Your task to perform on an android device: Go to battery settings Image 0: 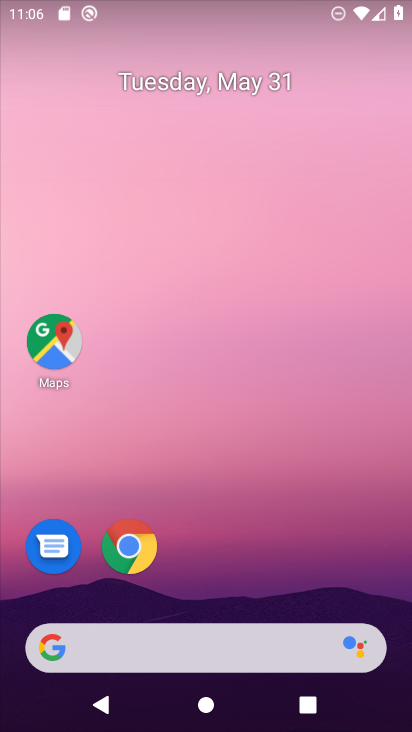
Step 0: drag from (214, 634) to (239, 26)
Your task to perform on an android device: Go to battery settings Image 1: 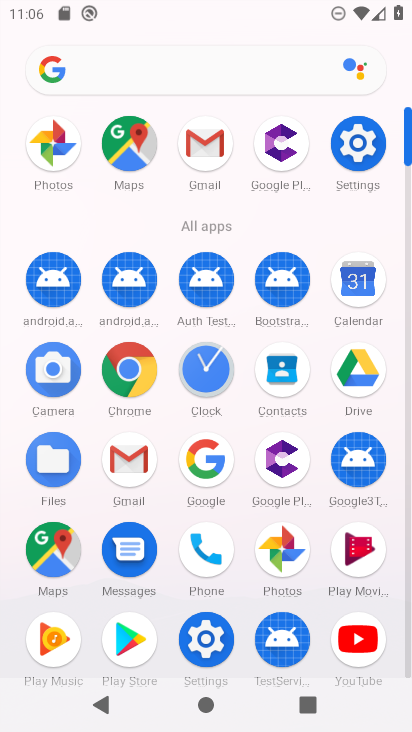
Step 1: click (368, 143)
Your task to perform on an android device: Go to battery settings Image 2: 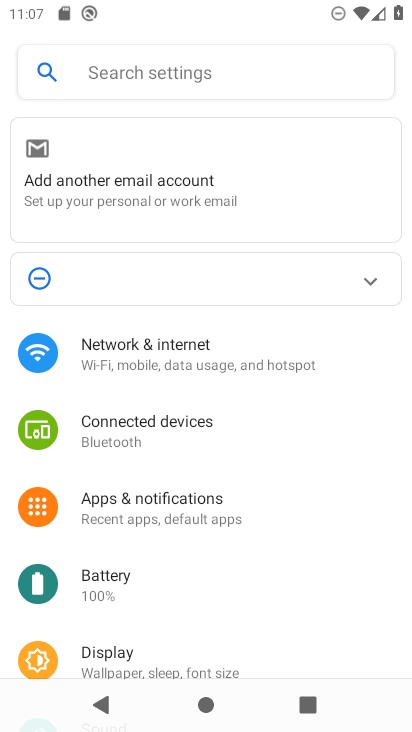
Step 2: click (110, 583)
Your task to perform on an android device: Go to battery settings Image 3: 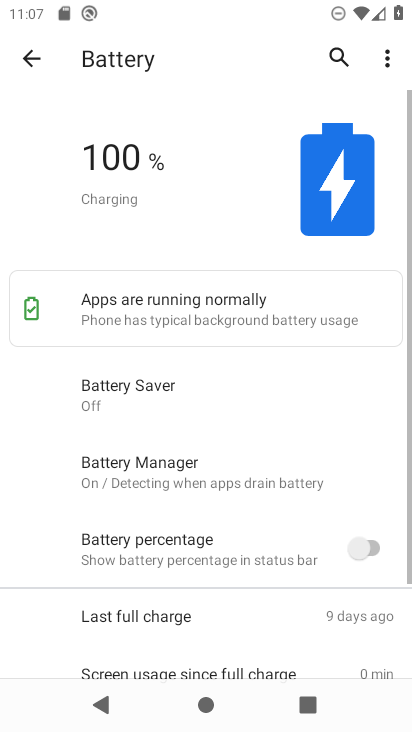
Step 3: task complete